Your task to perform on an android device: Open Yahoo.com Image 0: 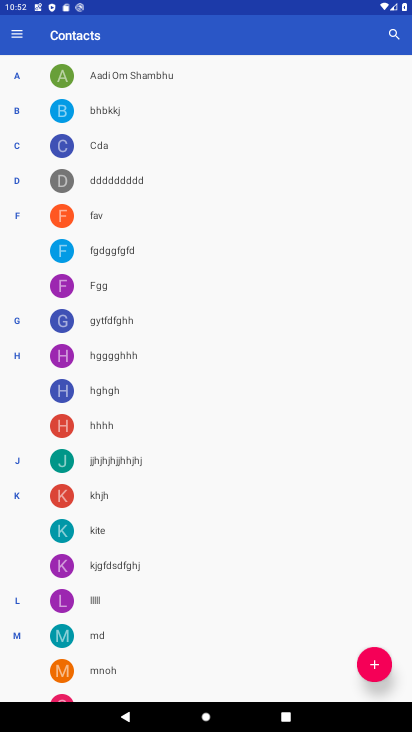
Step 0: press home button
Your task to perform on an android device: Open Yahoo.com Image 1: 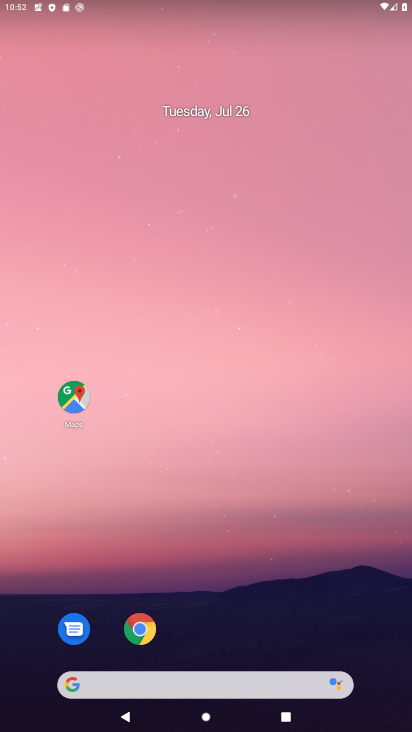
Step 1: drag from (214, 632) to (226, 115)
Your task to perform on an android device: Open Yahoo.com Image 2: 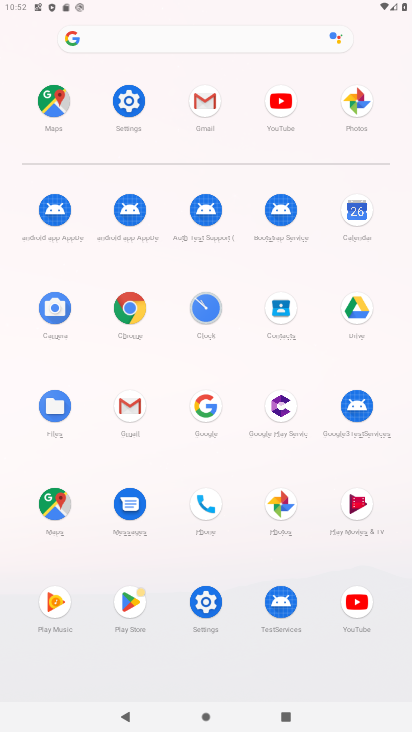
Step 2: click (199, 45)
Your task to perform on an android device: Open Yahoo.com Image 3: 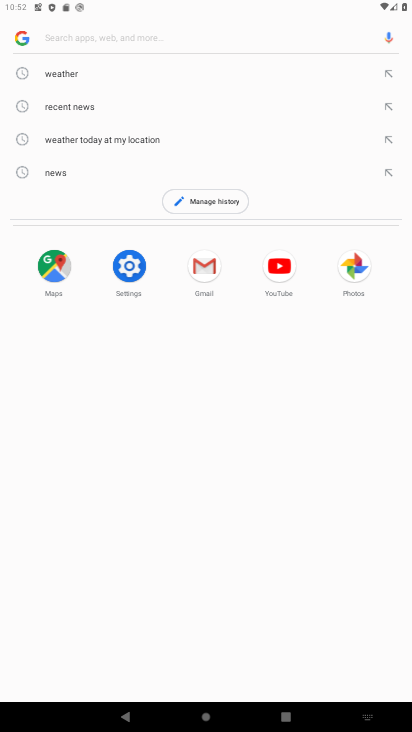
Step 3: type "yahoo.com"
Your task to perform on an android device: Open Yahoo.com Image 4: 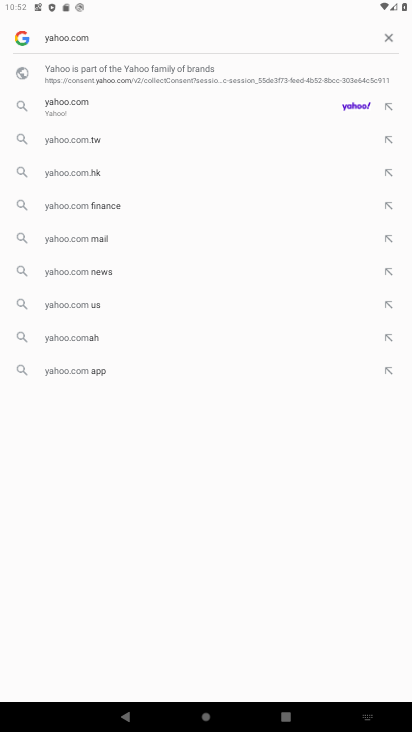
Step 4: click (118, 86)
Your task to perform on an android device: Open Yahoo.com Image 5: 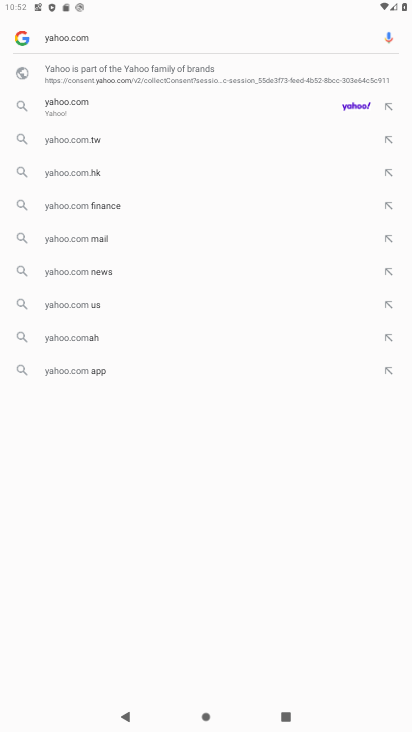
Step 5: task complete